Your task to perform on an android device: toggle pop-ups in chrome Image 0: 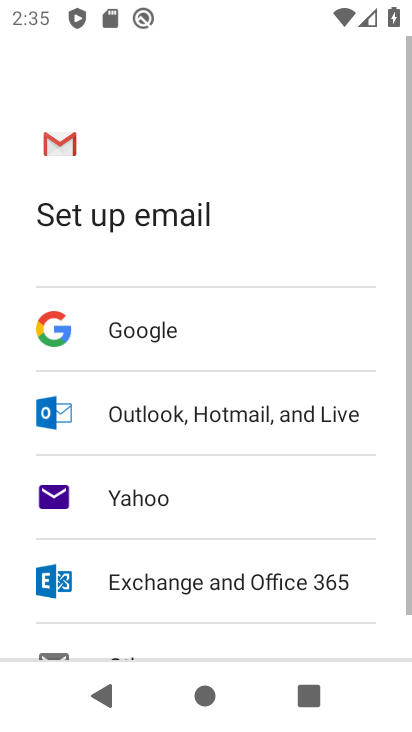
Step 0: press home button
Your task to perform on an android device: toggle pop-ups in chrome Image 1: 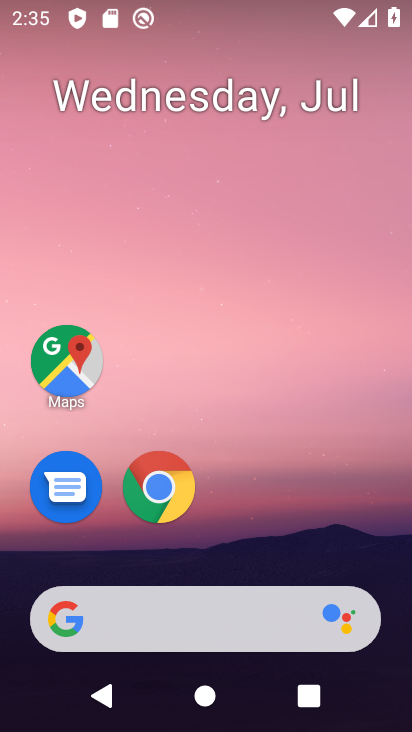
Step 1: click (156, 474)
Your task to perform on an android device: toggle pop-ups in chrome Image 2: 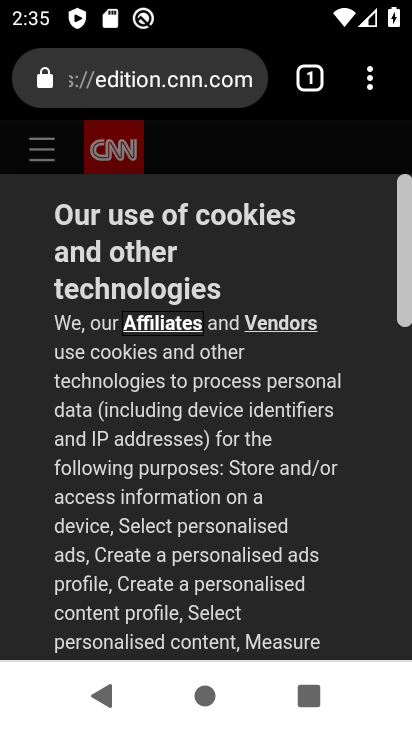
Step 2: click (371, 100)
Your task to perform on an android device: toggle pop-ups in chrome Image 3: 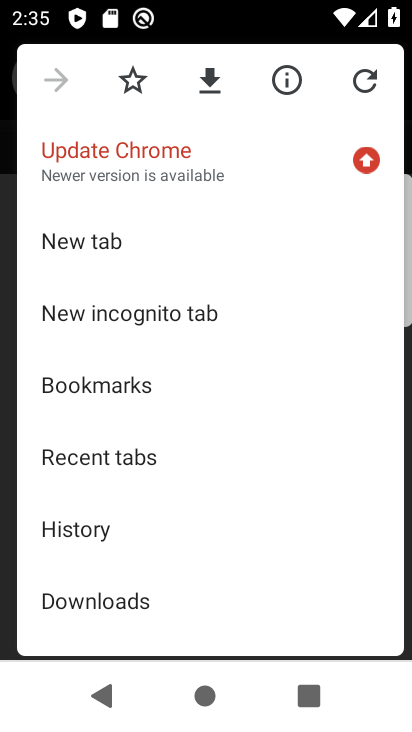
Step 3: drag from (195, 636) to (208, 258)
Your task to perform on an android device: toggle pop-ups in chrome Image 4: 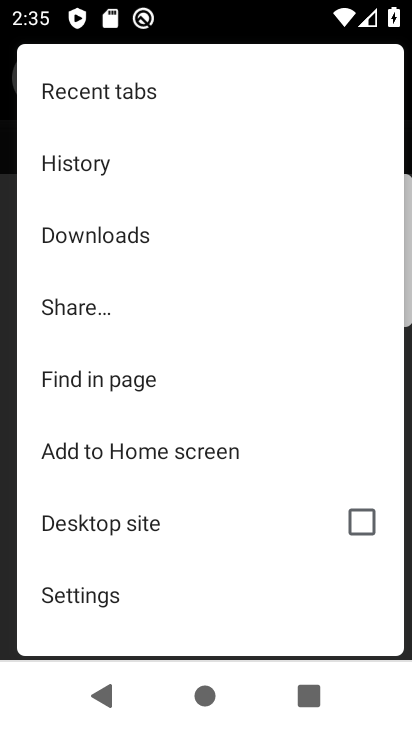
Step 4: click (191, 597)
Your task to perform on an android device: toggle pop-ups in chrome Image 5: 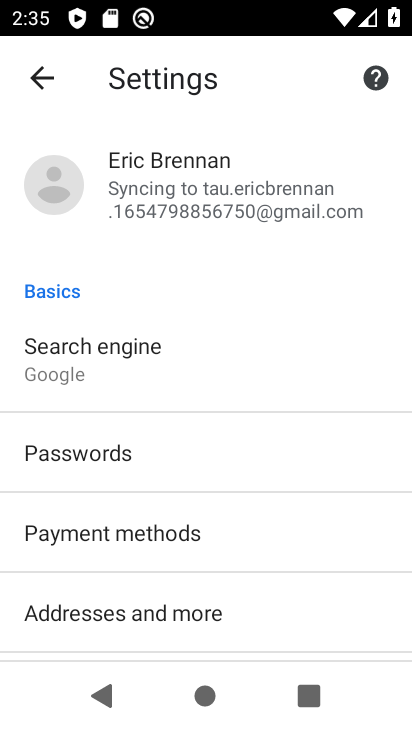
Step 5: drag from (321, 640) to (282, 166)
Your task to perform on an android device: toggle pop-ups in chrome Image 6: 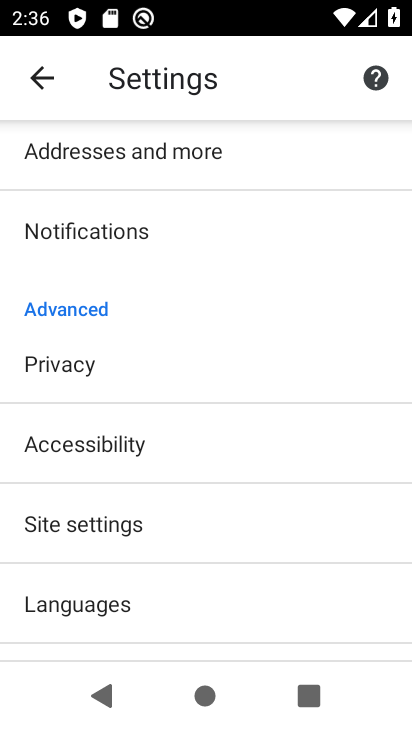
Step 6: click (303, 535)
Your task to perform on an android device: toggle pop-ups in chrome Image 7: 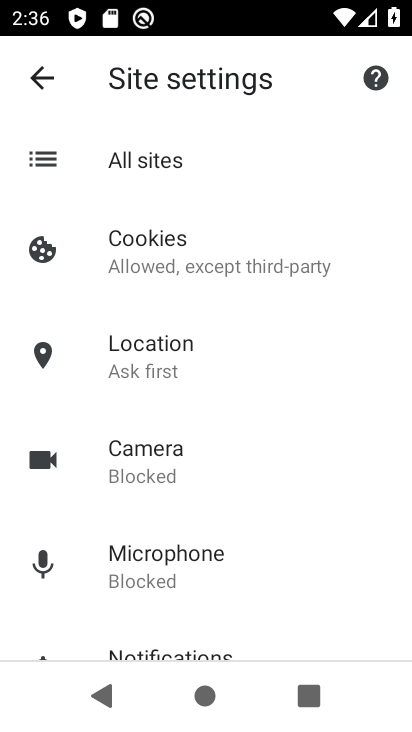
Step 7: drag from (296, 608) to (253, 316)
Your task to perform on an android device: toggle pop-ups in chrome Image 8: 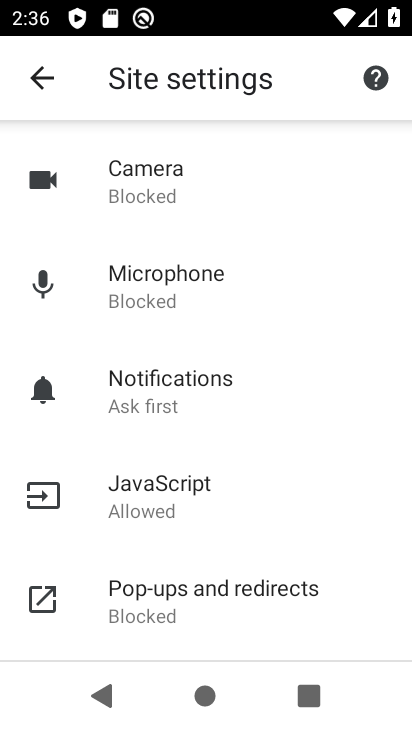
Step 8: click (252, 609)
Your task to perform on an android device: toggle pop-ups in chrome Image 9: 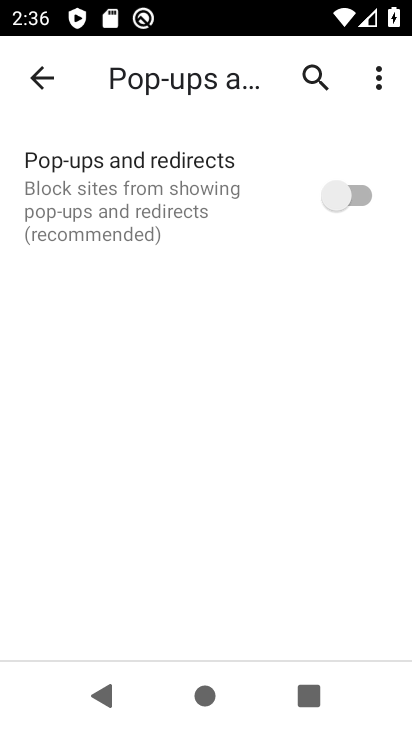
Step 9: click (361, 205)
Your task to perform on an android device: toggle pop-ups in chrome Image 10: 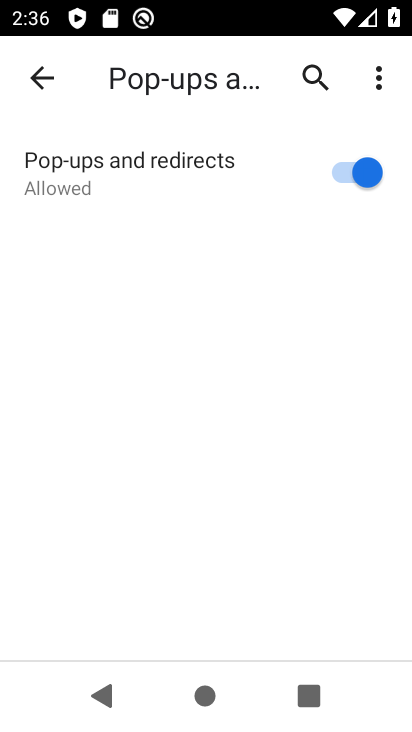
Step 10: task complete